Your task to perform on an android device: set the stopwatch Image 0: 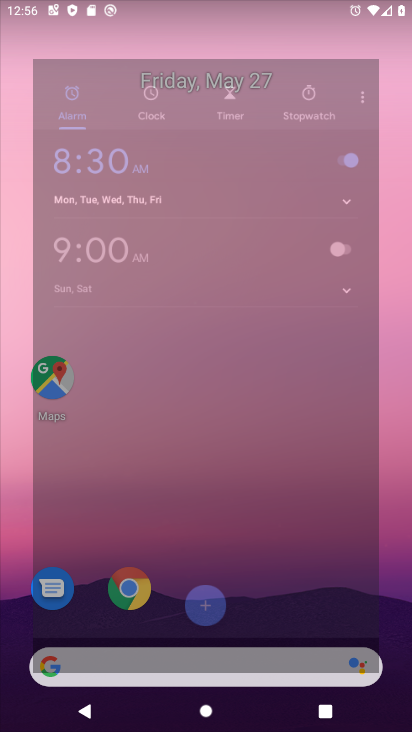
Step 0: press home button
Your task to perform on an android device: set the stopwatch Image 1: 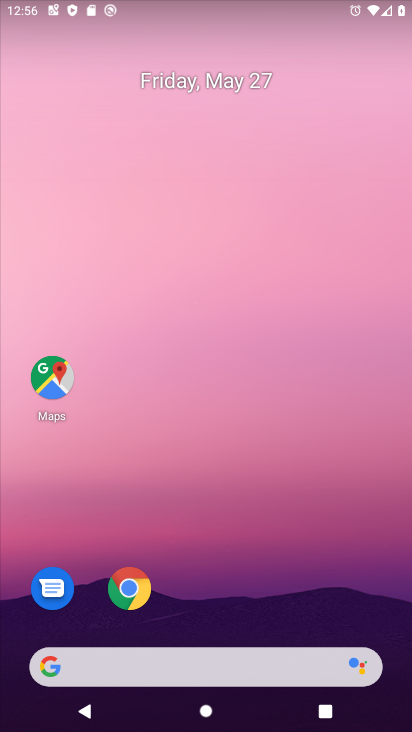
Step 1: drag from (220, 605) to (240, 91)
Your task to perform on an android device: set the stopwatch Image 2: 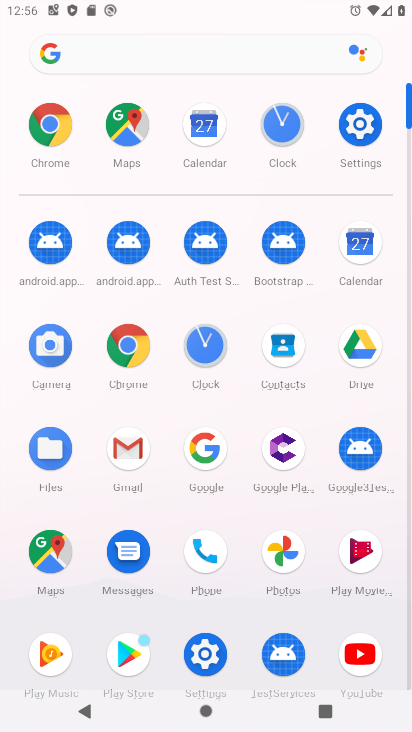
Step 2: click (277, 115)
Your task to perform on an android device: set the stopwatch Image 3: 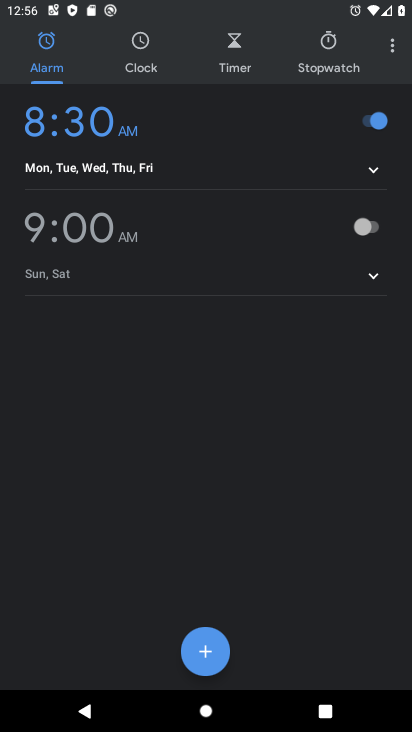
Step 3: click (327, 39)
Your task to perform on an android device: set the stopwatch Image 4: 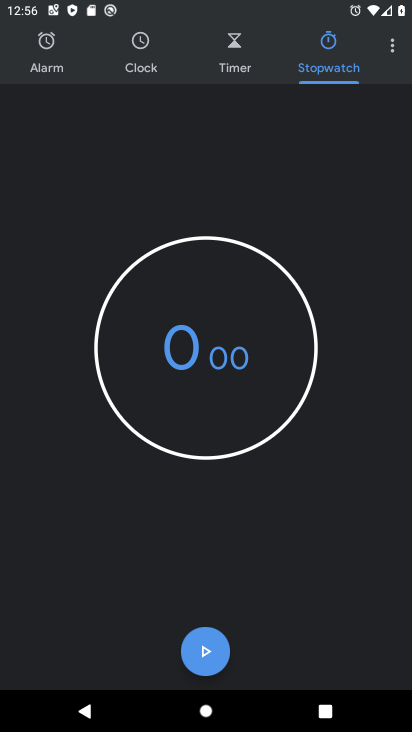
Step 4: click (214, 647)
Your task to perform on an android device: set the stopwatch Image 5: 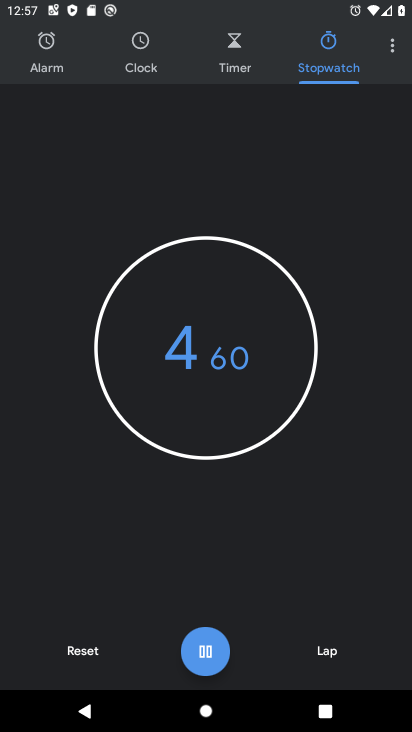
Step 5: task complete